Your task to perform on an android device: Open Reddit.com Image 0: 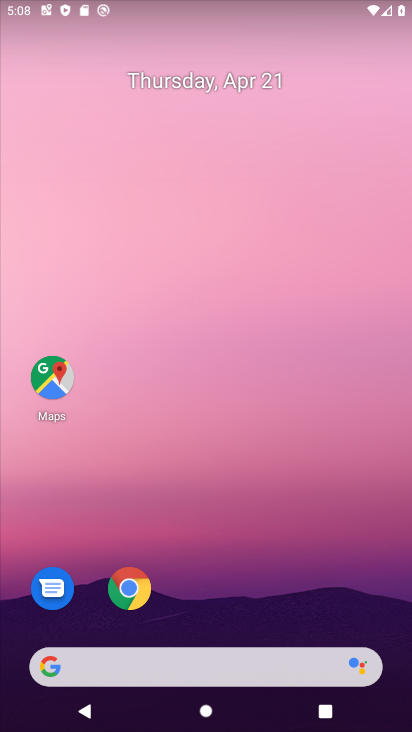
Step 0: click (130, 583)
Your task to perform on an android device: Open Reddit.com Image 1: 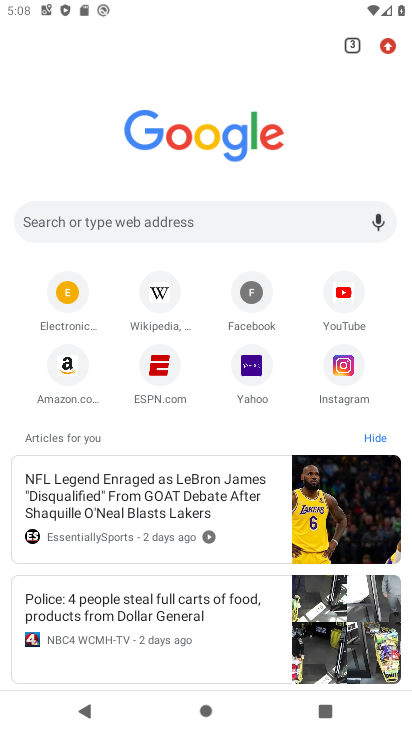
Step 1: click (95, 218)
Your task to perform on an android device: Open Reddit.com Image 2: 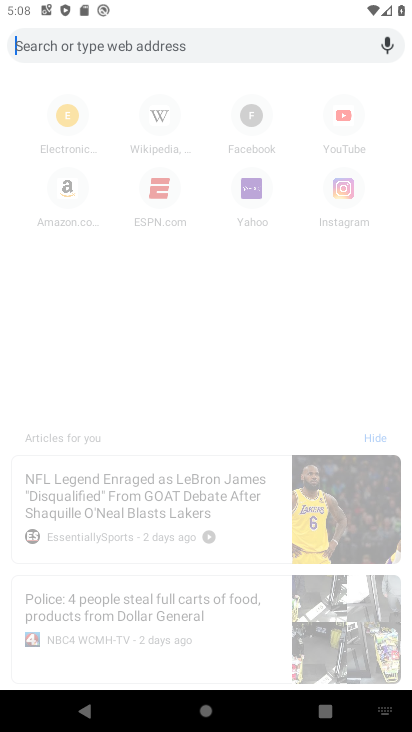
Step 2: click (107, 44)
Your task to perform on an android device: Open Reddit.com Image 3: 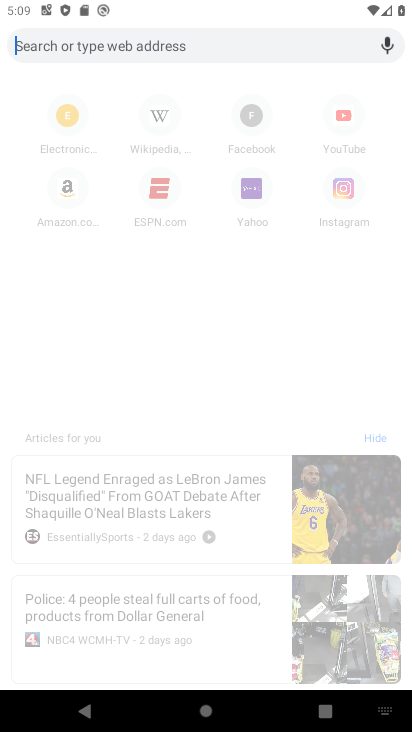
Step 3: type "reddit.com"
Your task to perform on an android device: Open Reddit.com Image 4: 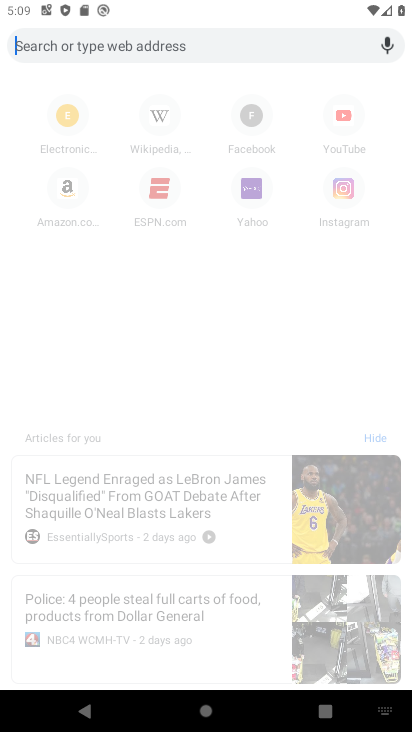
Step 4: click (126, 46)
Your task to perform on an android device: Open Reddit.com Image 5: 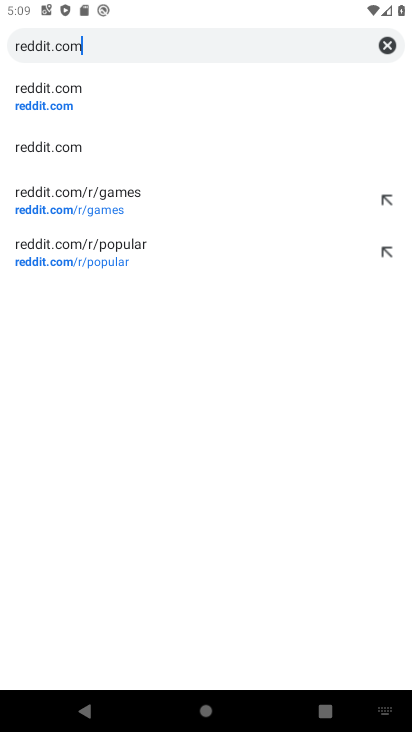
Step 5: type "reddit.com"
Your task to perform on an android device: Open Reddit.com Image 6: 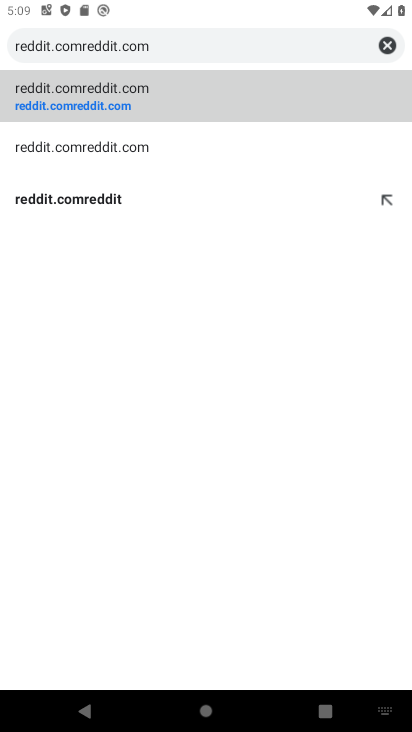
Step 6: click (154, 97)
Your task to perform on an android device: Open Reddit.com Image 7: 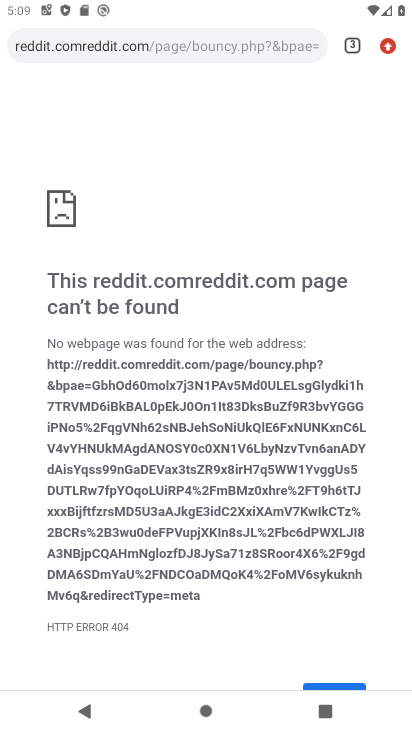
Step 7: task complete